Your task to perform on an android device: Open Google Maps Image 0: 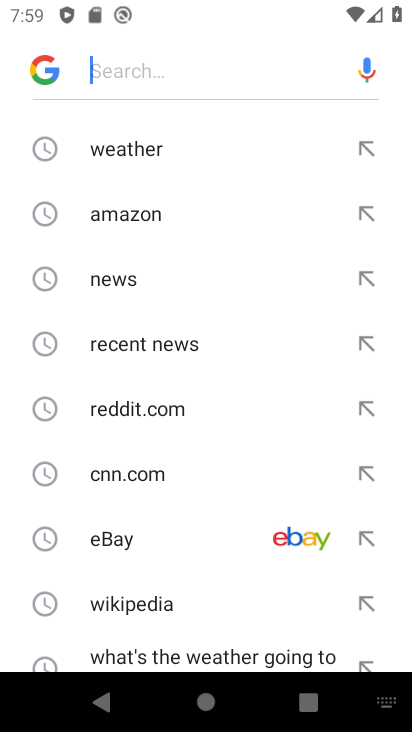
Step 0: press home button
Your task to perform on an android device: Open Google Maps Image 1: 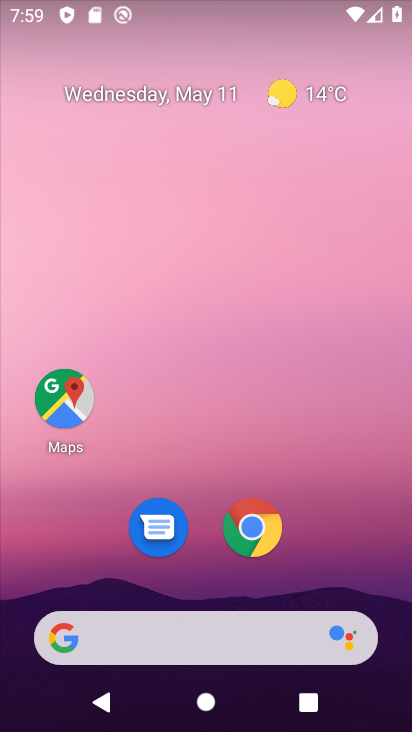
Step 1: click (69, 382)
Your task to perform on an android device: Open Google Maps Image 2: 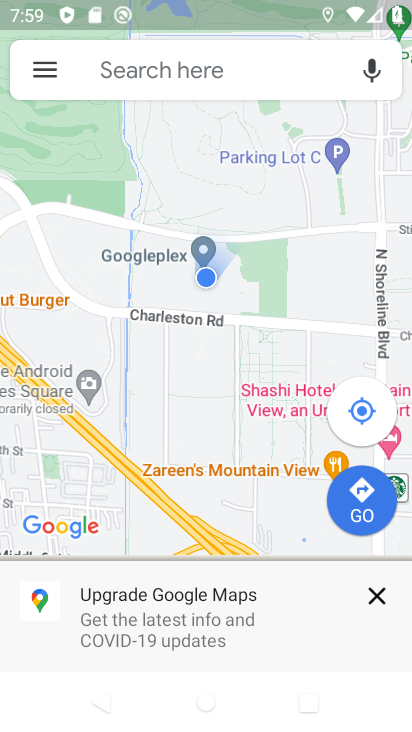
Step 2: task complete